Your task to perform on an android device: Open the Play Movies app and select the watchlist tab. Image 0: 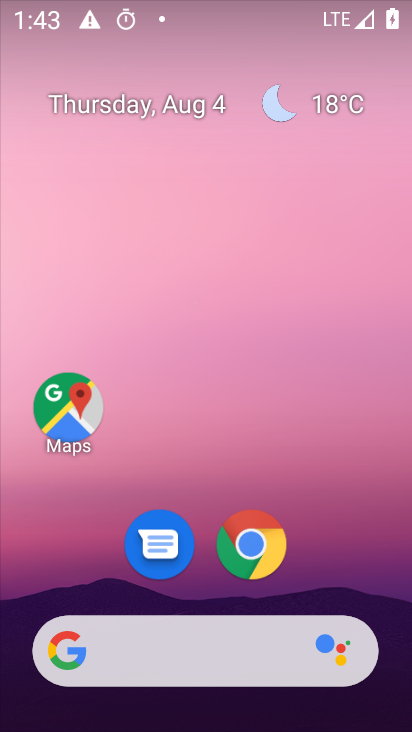
Step 0: drag from (375, 667) to (264, 26)
Your task to perform on an android device: Open the Play Movies app and select the watchlist tab. Image 1: 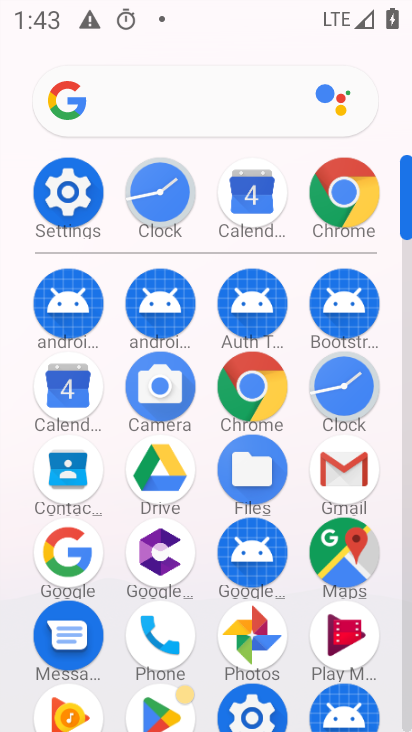
Step 1: click (338, 654)
Your task to perform on an android device: Open the Play Movies app and select the watchlist tab. Image 2: 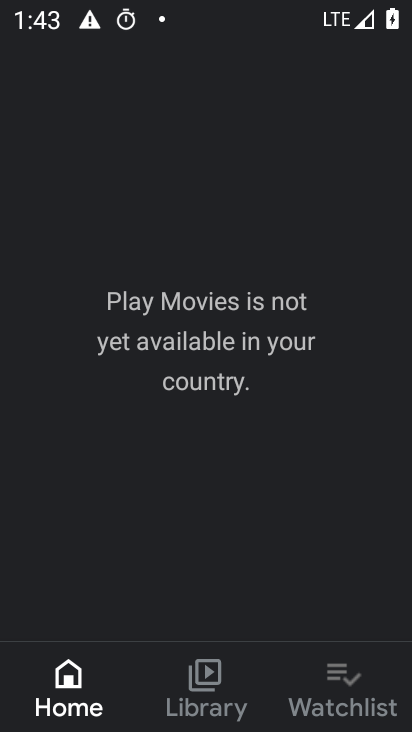
Step 2: click (363, 688)
Your task to perform on an android device: Open the Play Movies app and select the watchlist tab. Image 3: 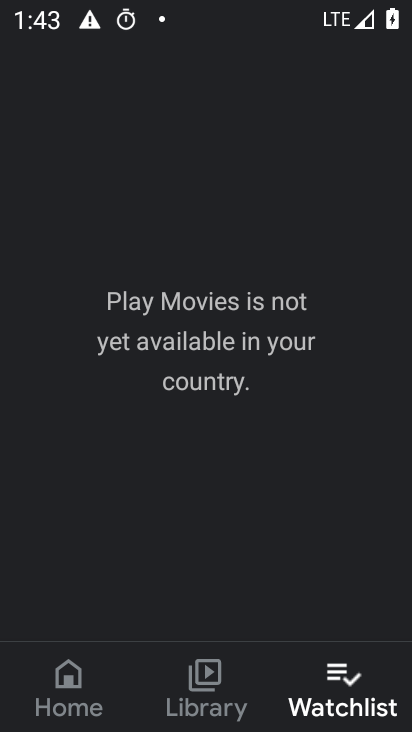
Step 3: task complete